Your task to perform on an android device: change the clock style Image 0: 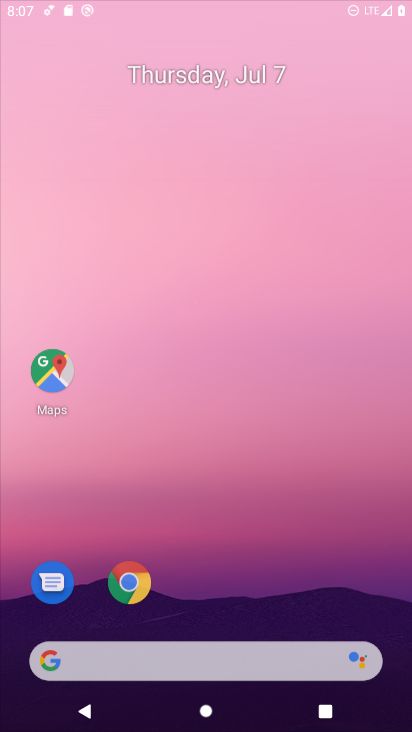
Step 0: click (344, 647)
Your task to perform on an android device: change the clock style Image 1: 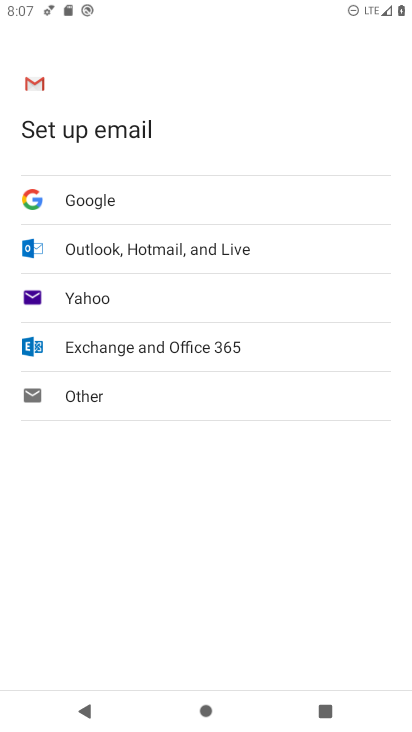
Step 1: press home button
Your task to perform on an android device: change the clock style Image 2: 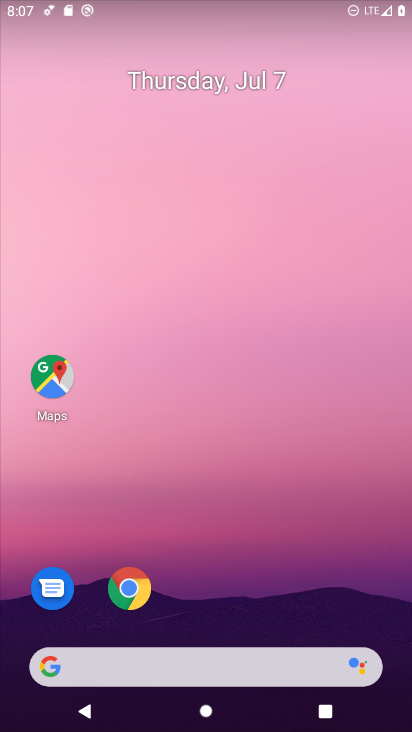
Step 2: drag from (146, 617) to (156, 229)
Your task to perform on an android device: change the clock style Image 3: 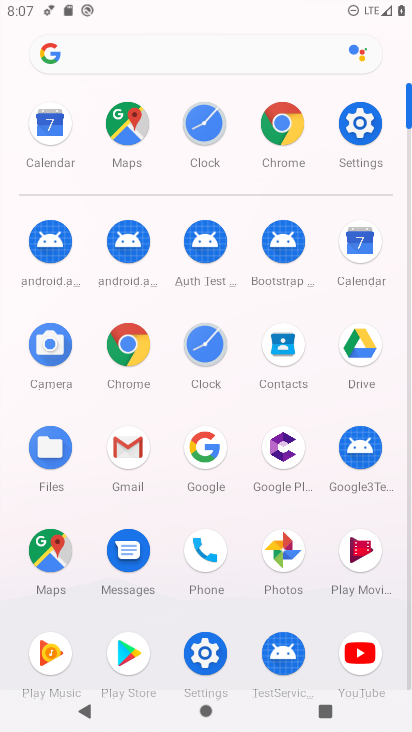
Step 3: click (206, 332)
Your task to perform on an android device: change the clock style Image 4: 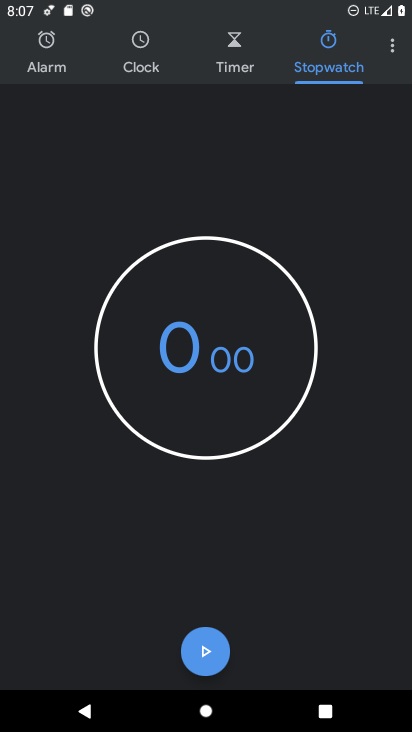
Step 4: click (389, 42)
Your task to perform on an android device: change the clock style Image 5: 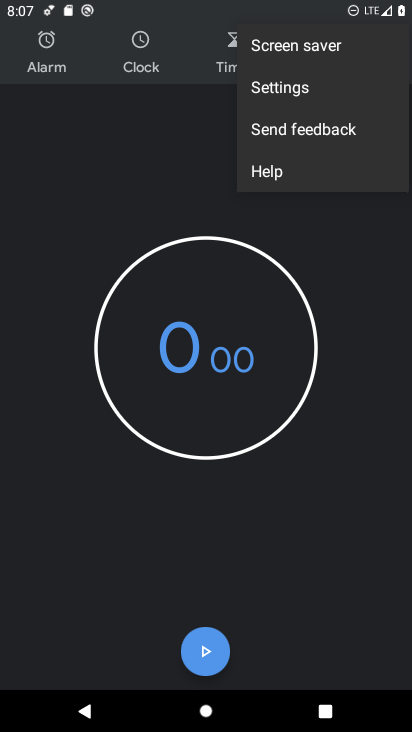
Step 5: click (324, 88)
Your task to perform on an android device: change the clock style Image 6: 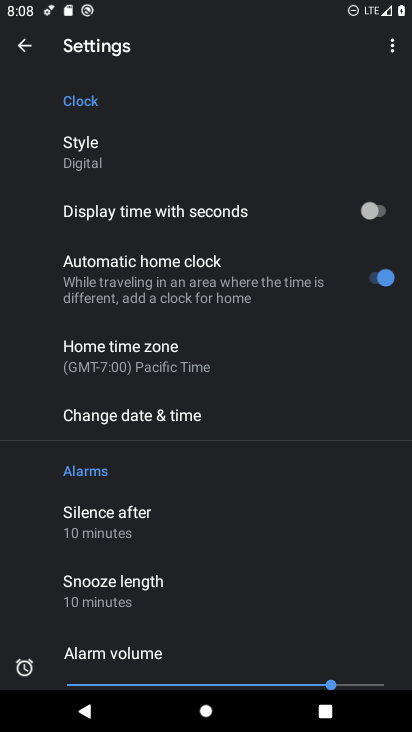
Step 6: click (74, 144)
Your task to perform on an android device: change the clock style Image 7: 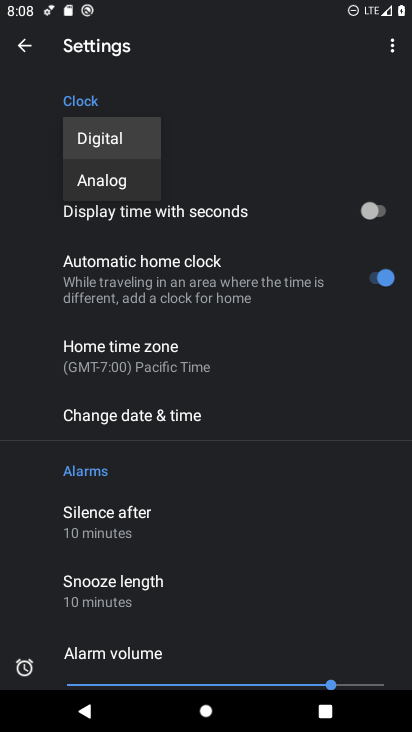
Step 7: click (98, 176)
Your task to perform on an android device: change the clock style Image 8: 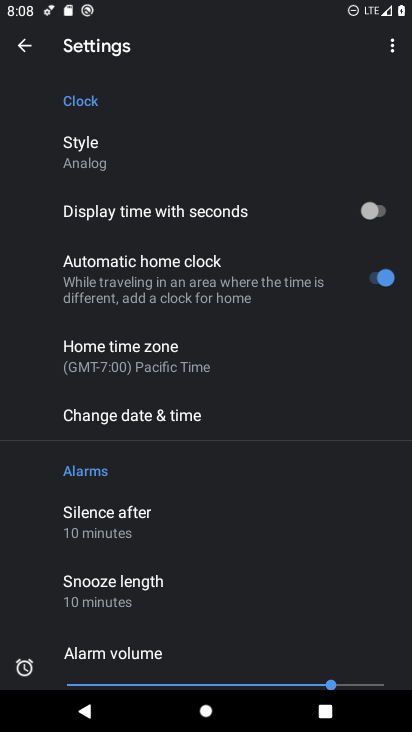
Step 8: task complete